Your task to perform on an android device: turn on sleep mode Image 0: 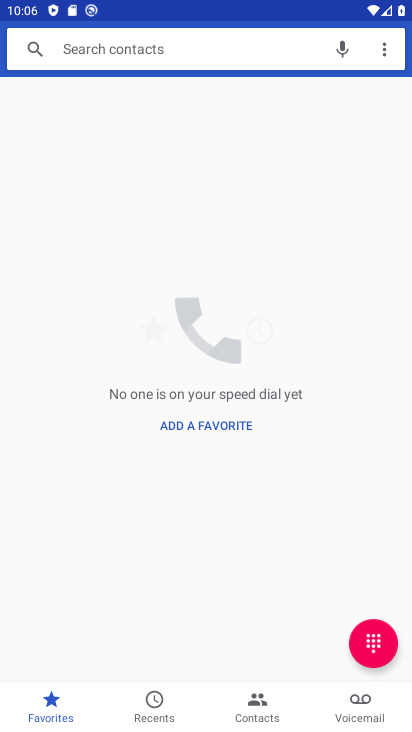
Step 0: press home button
Your task to perform on an android device: turn on sleep mode Image 1: 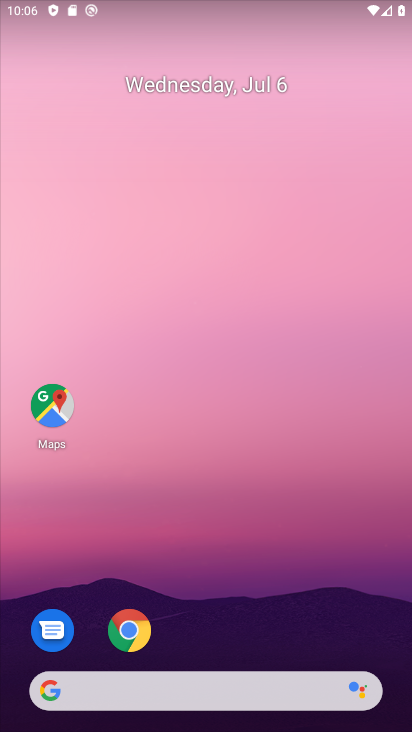
Step 1: drag from (167, 655) to (223, 136)
Your task to perform on an android device: turn on sleep mode Image 2: 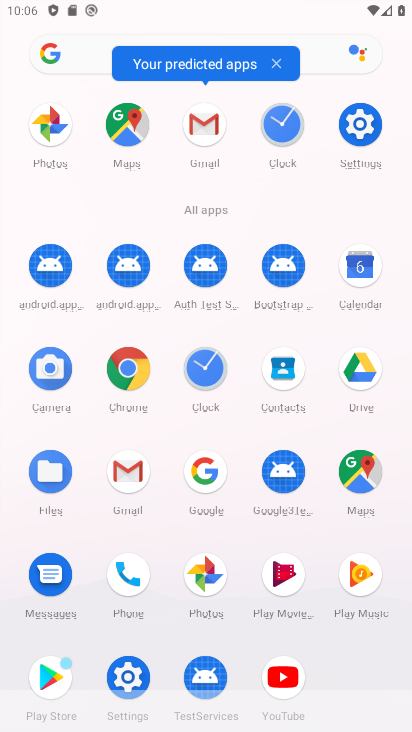
Step 2: click (123, 673)
Your task to perform on an android device: turn on sleep mode Image 3: 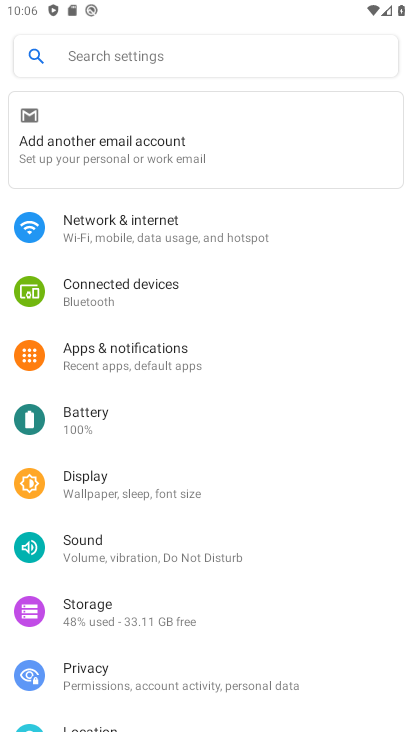
Step 3: click (92, 494)
Your task to perform on an android device: turn on sleep mode Image 4: 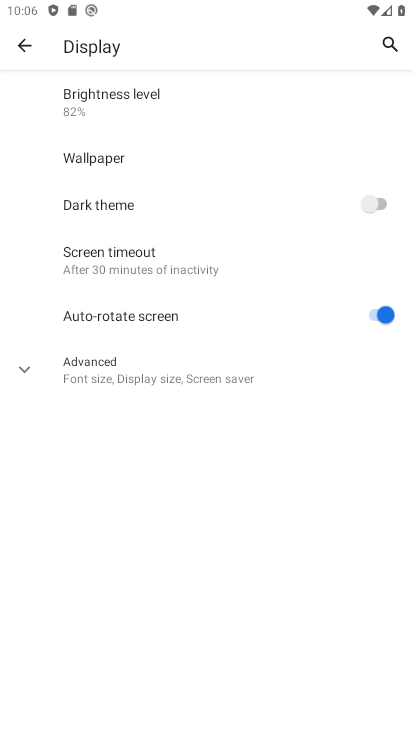
Step 4: click (150, 382)
Your task to perform on an android device: turn on sleep mode Image 5: 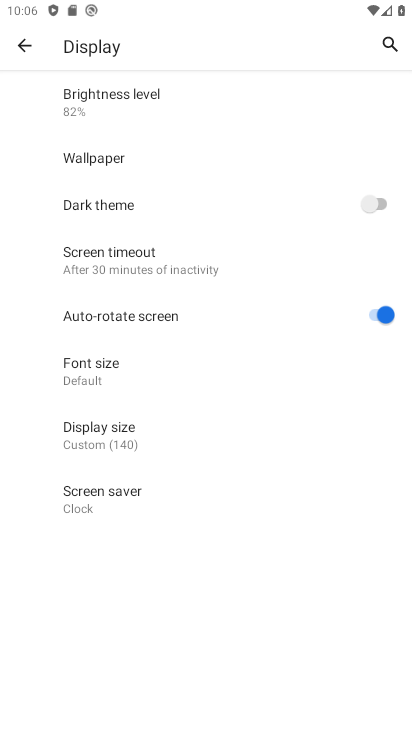
Step 5: task complete